Your task to perform on an android device: toggle wifi Image 0: 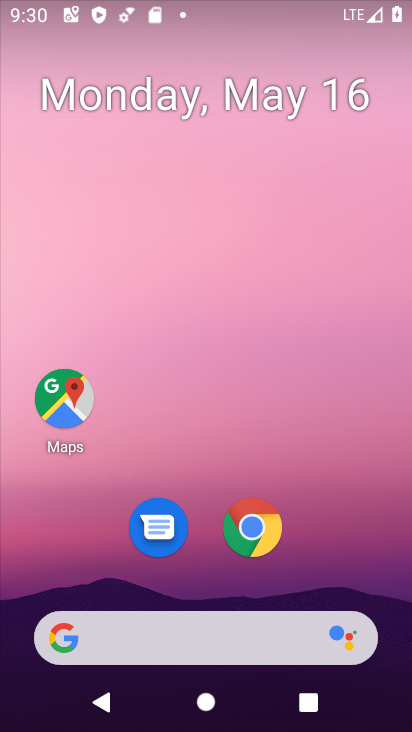
Step 0: drag from (365, 580) to (362, 7)
Your task to perform on an android device: toggle wifi Image 1: 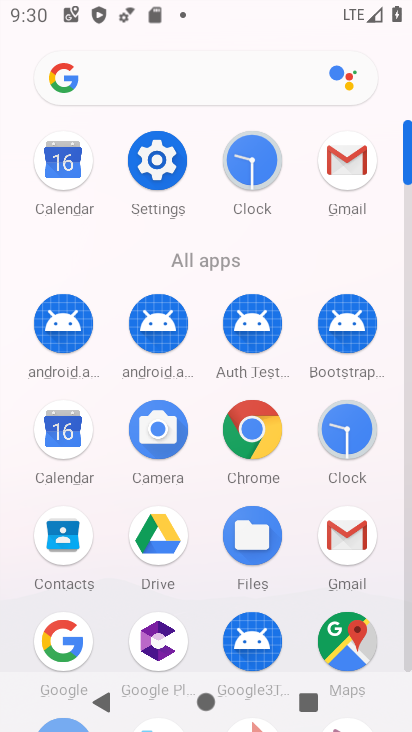
Step 1: click (156, 172)
Your task to perform on an android device: toggle wifi Image 2: 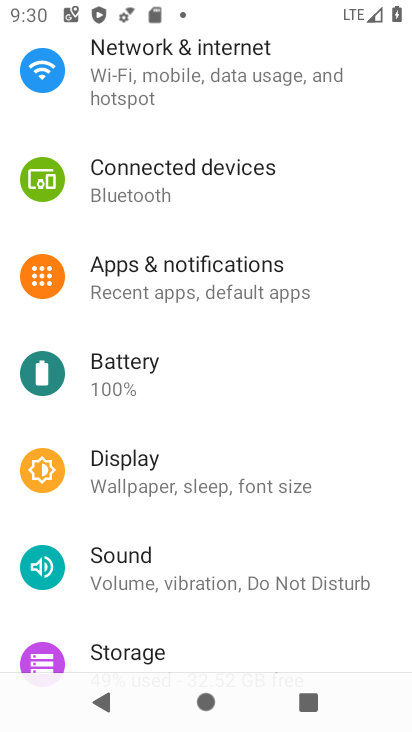
Step 2: click (128, 77)
Your task to perform on an android device: toggle wifi Image 3: 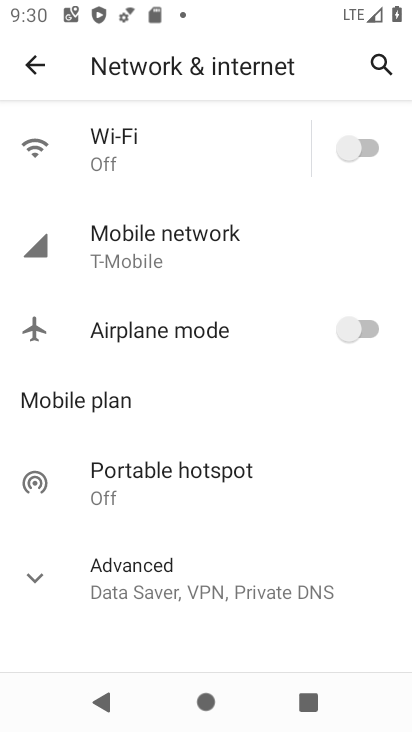
Step 3: click (352, 153)
Your task to perform on an android device: toggle wifi Image 4: 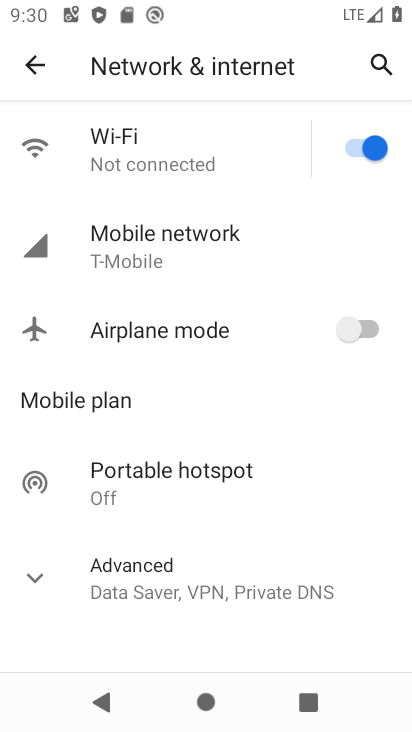
Step 4: task complete